Your task to perform on an android device: change the clock display to analog Image 0: 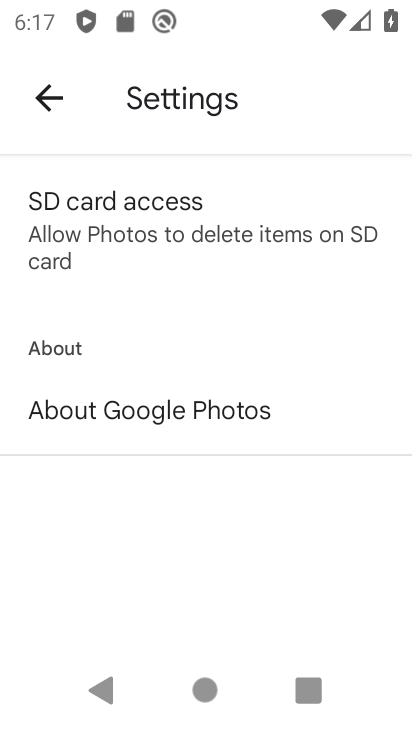
Step 0: press home button
Your task to perform on an android device: change the clock display to analog Image 1: 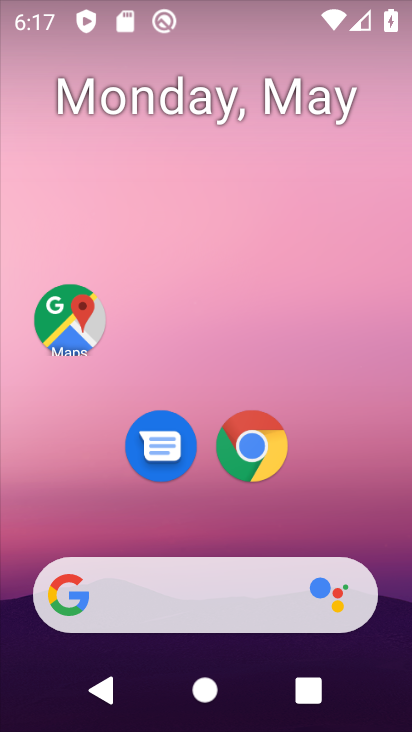
Step 1: drag from (345, 468) to (259, 88)
Your task to perform on an android device: change the clock display to analog Image 2: 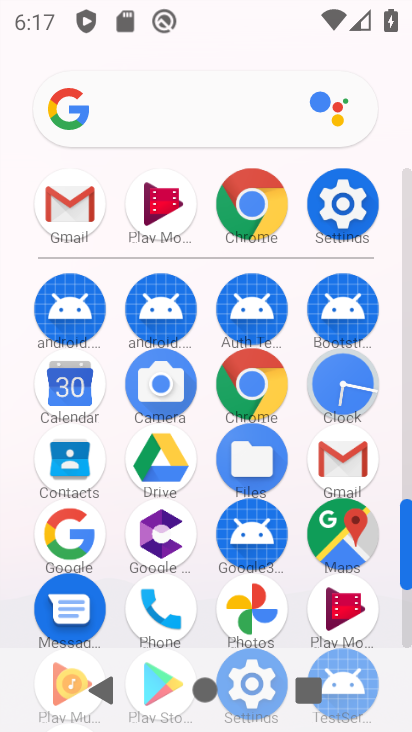
Step 2: click (349, 371)
Your task to perform on an android device: change the clock display to analog Image 3: 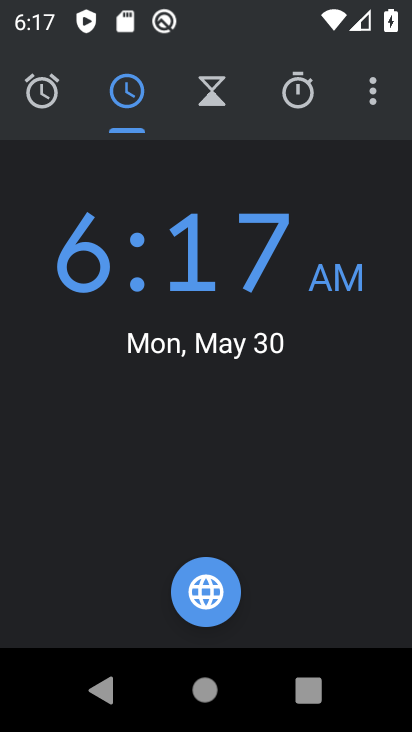
Step 3: click (373, 86)
Your task to perform on an android device: change the clock display to analog Image 4: 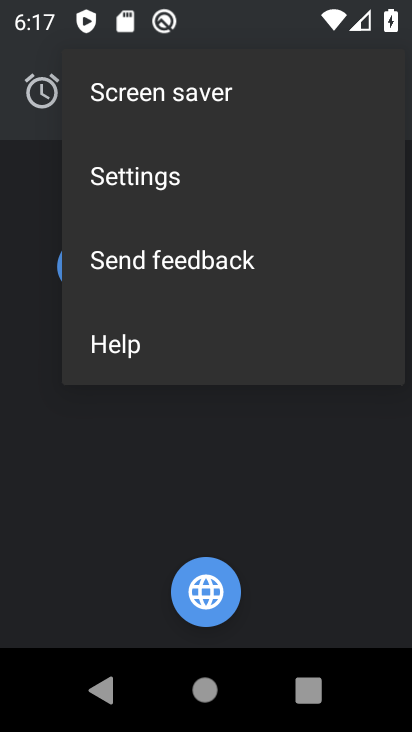
Step 4: click (149, 164)
Your task to perform on an android device: change the clock display to analog Image 5: 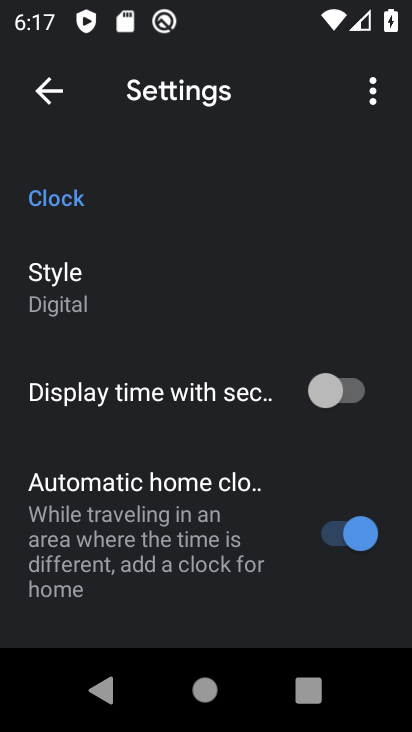
Step 5: click (54, 281)
Your task to perform on an android device: change the clock display to analog Image 6: 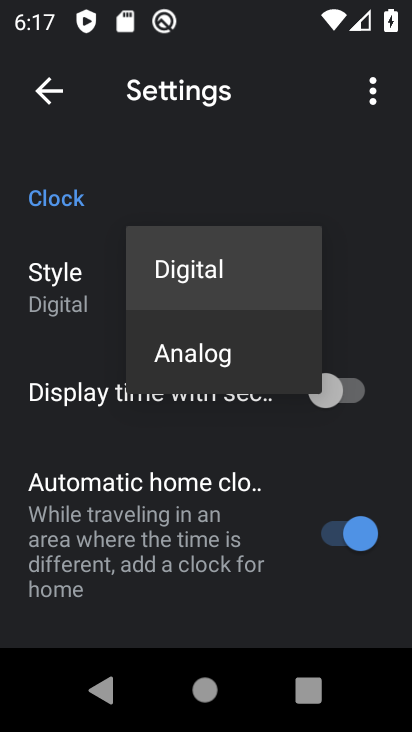
Step 6: click (175, 359)
Your task to perform on an android device: change the clock display to analog Image 7: 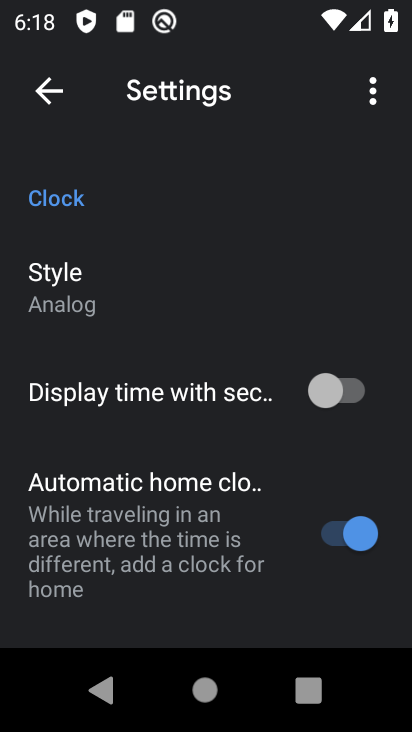
Step 7: task complete